Your task to perform on an android device: Show me recent news Image 0: 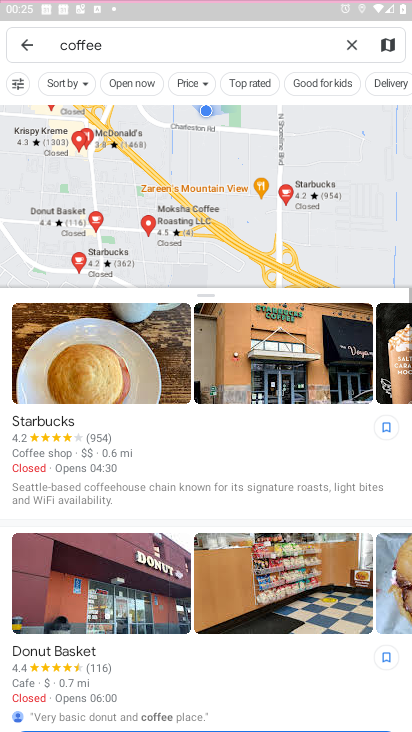
Step 0: click (205, 250)
Your task to perform on an android device: Show me recent news Image 1: 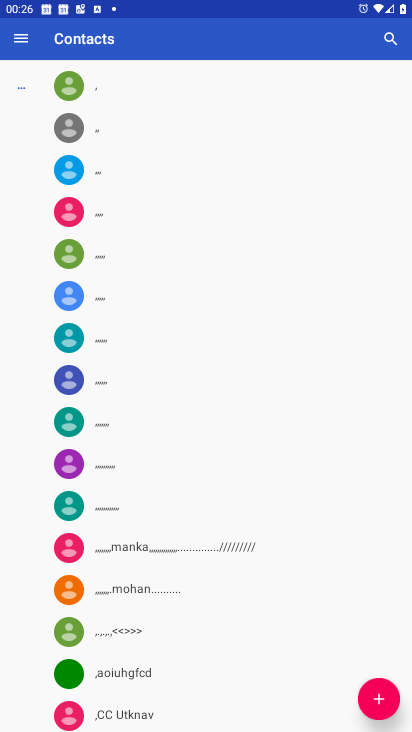
Step 1: press home button
Your task to perform on an android device: Show me recent news Image 2: 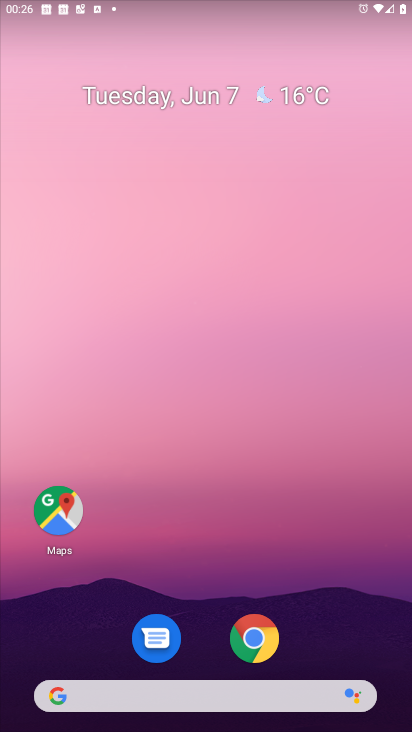
Step 2: click (168, 704)
Your task to perform on an android device: Show me recent news Image 3: 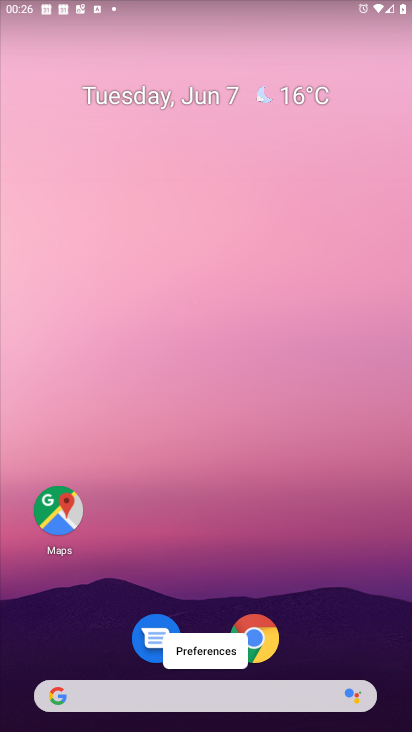
Step 3: click (147, 699)
Your task to perform on an android device: Show me recent news Image 4: 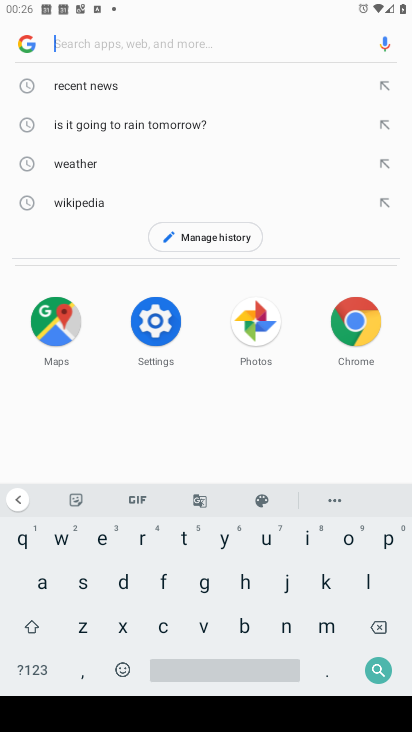
Step 4: click (116, 91)
Your task to perform on an android device: Show me recent news Image 5: 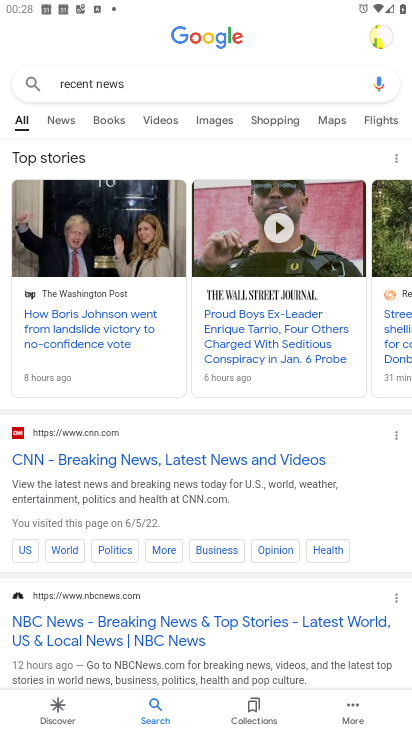
Step 5: task complete